Your task to perform on an android device: turn on location history Image 0: 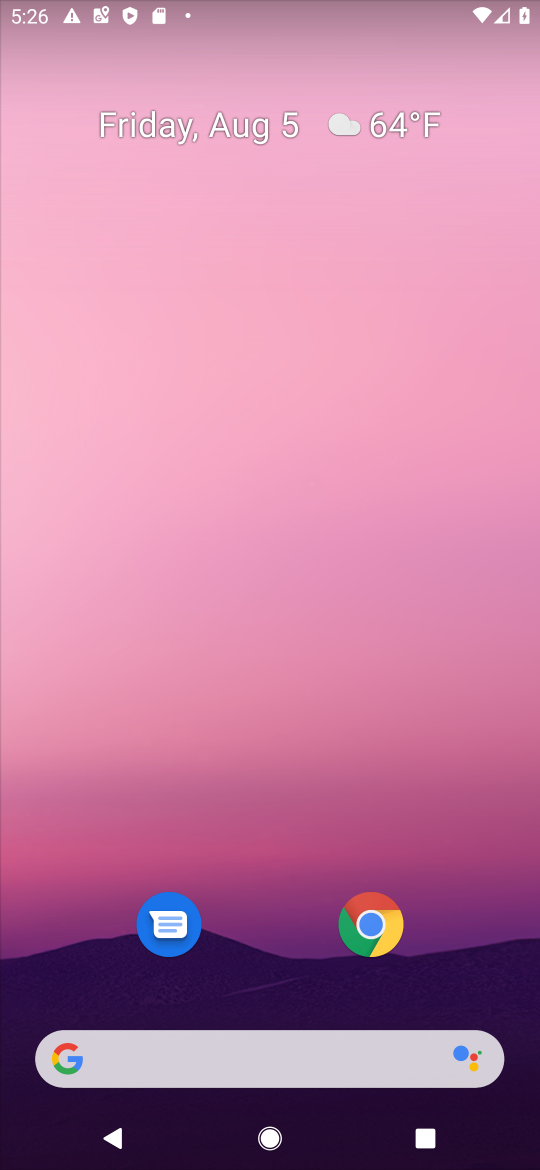
Step 0: drag from (198, 1138) to (266, 252)
Your task to perform on an android device: turn on location history Image 1: 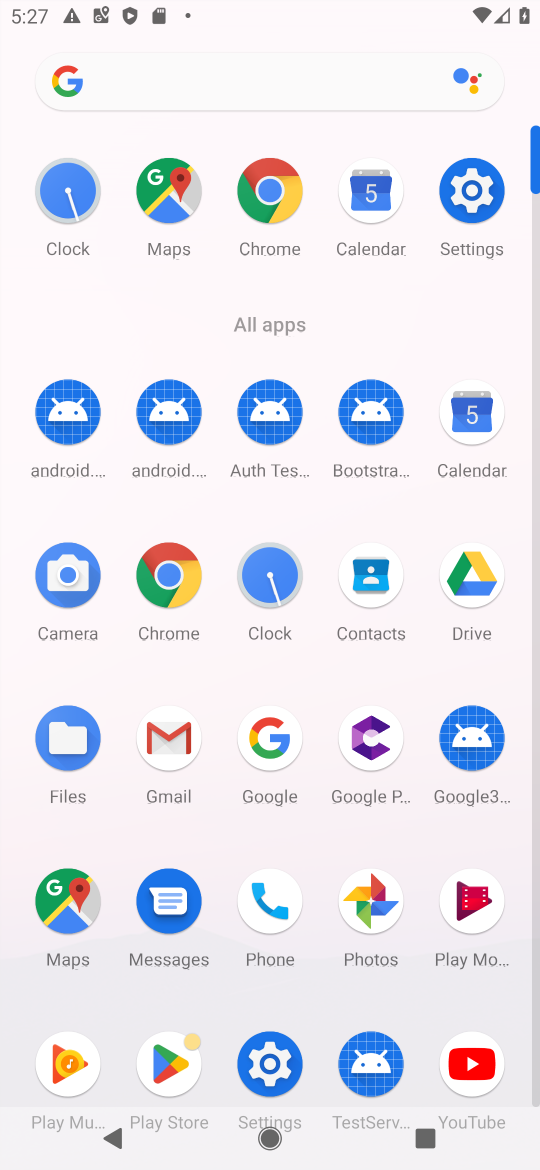
Step 1: click (70, 911)
Your task to perform on an android device: turn on location history Image 2: 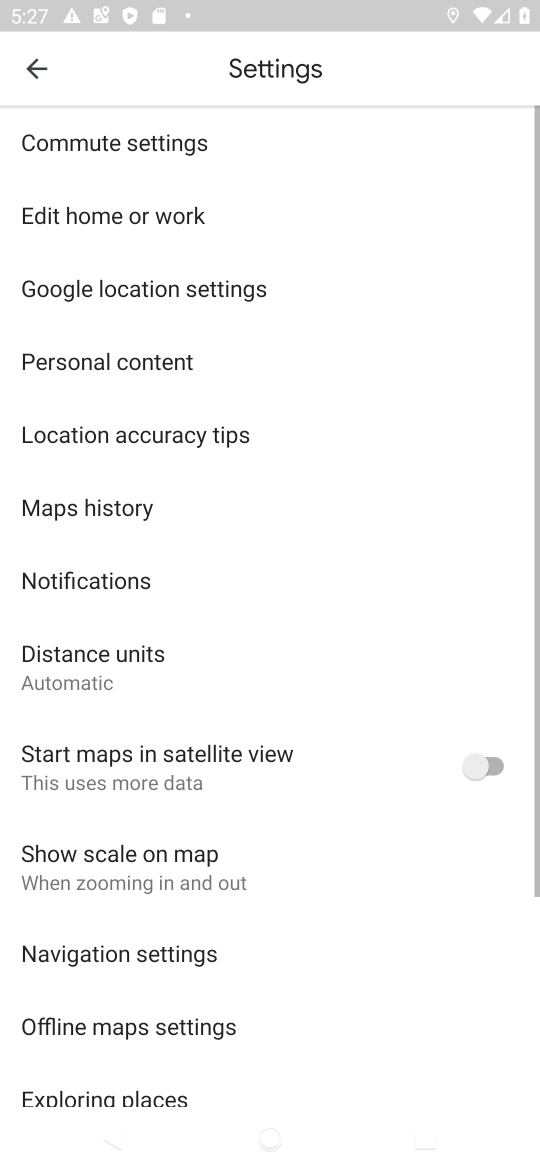
Step 2: click (37, 63)
Your task to perform on an android device: turn on location history Image 3: 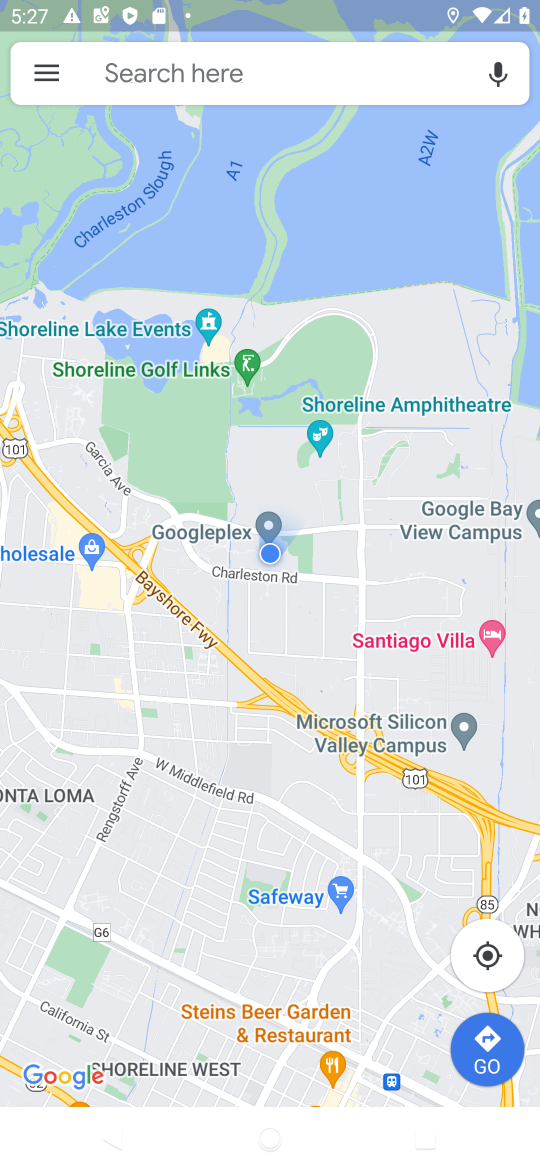
Step 3: click (32, 70)
Your task to perform on an android device: turn on location history Image 4: 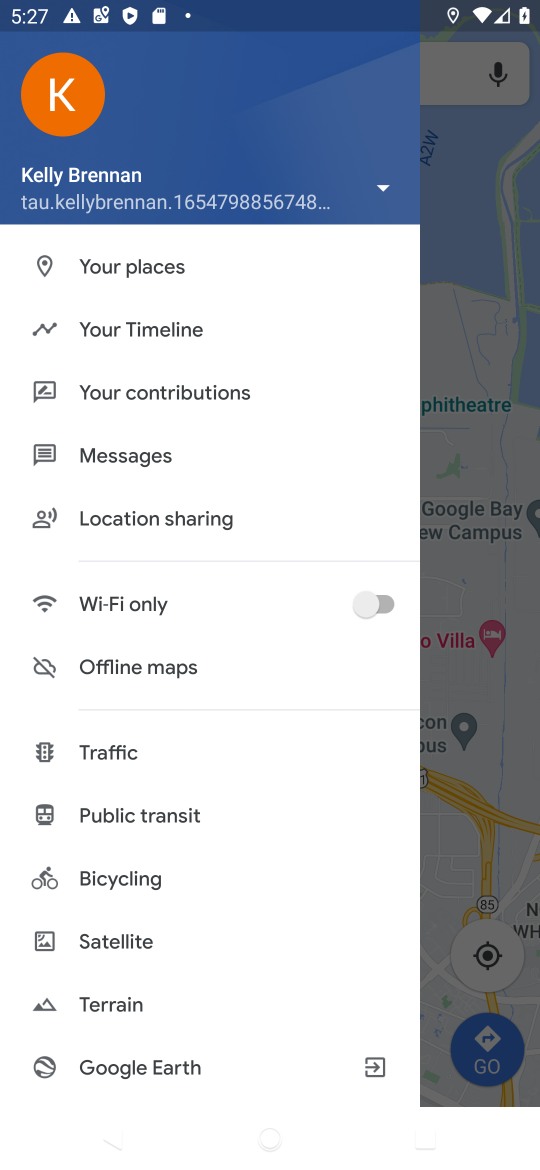
Step 4: click (220, 332)
Your task to perform on an android device: turn on location history Image 5: 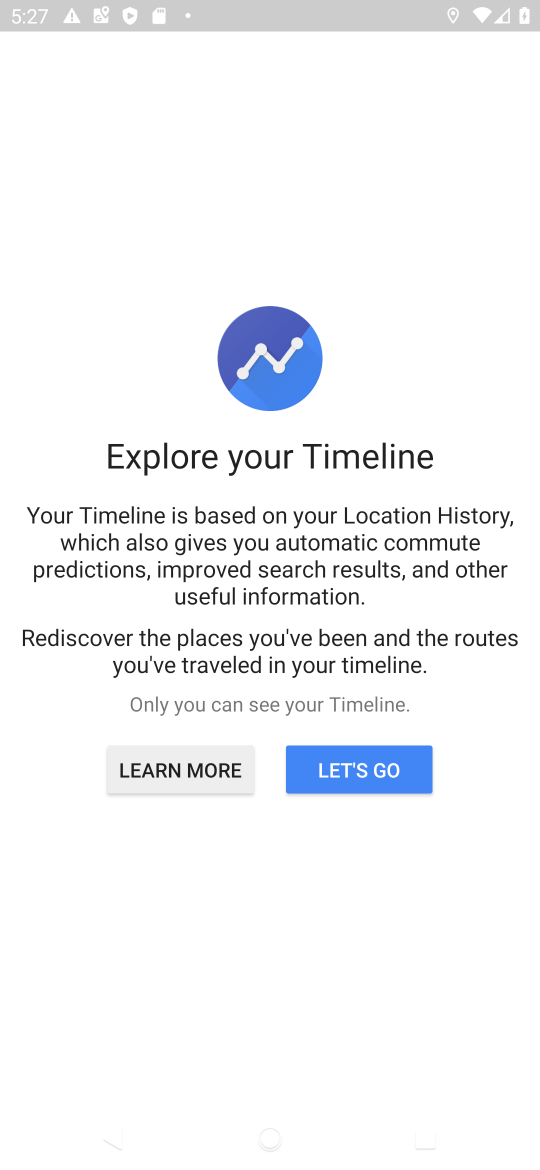
Step 5: click (351, 759)
Your task to perform on an android device: turn on location history Image 6: 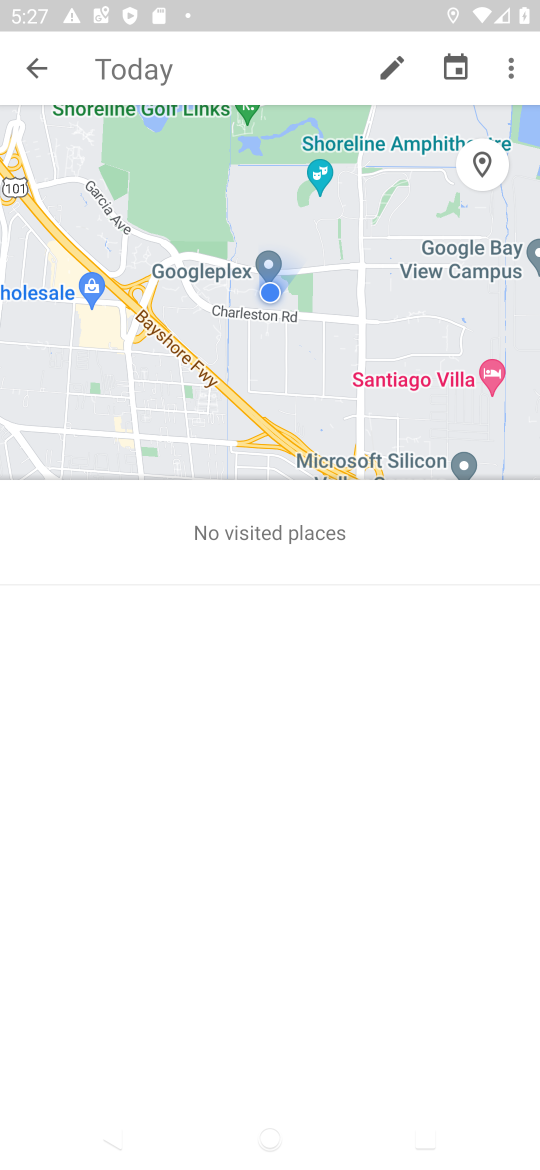
Step 6: click (506, 71)
Your task to perform on an android device: turn on location history Image 7: 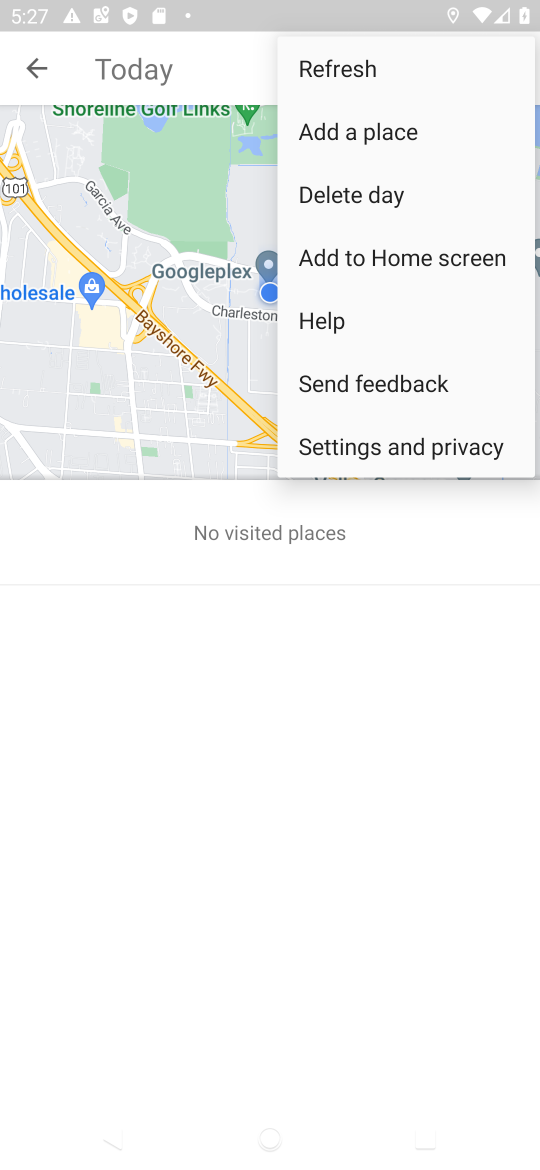
Step 7: click (383, 446)
Your task to perform on an android device: turn on location history Image 8: 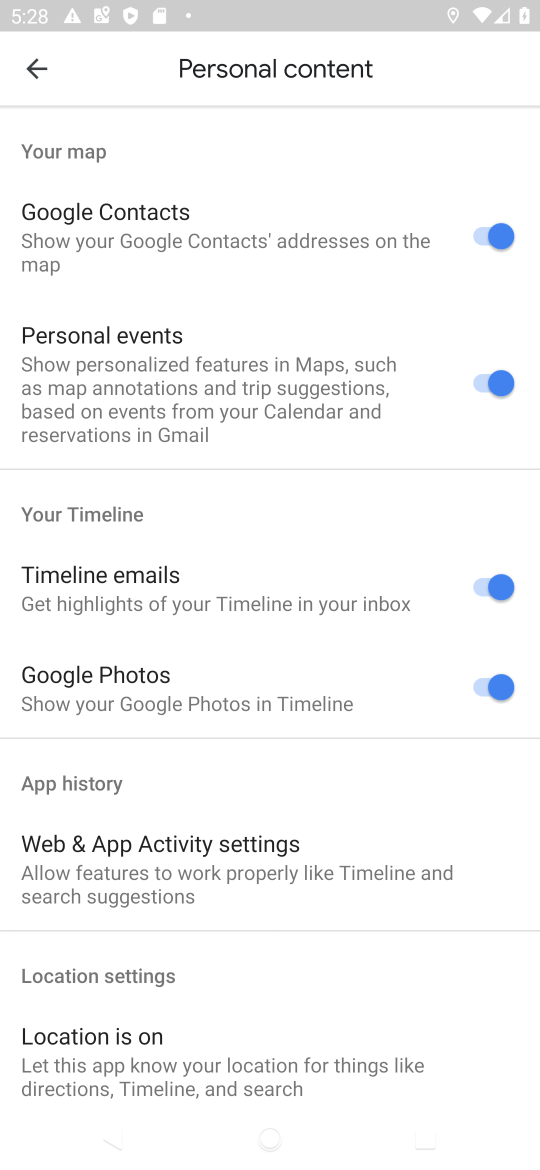
Step 8: drag from (308, 1020) to (167, 438)
Your task to perform on an android device: turn on location history Image 9: 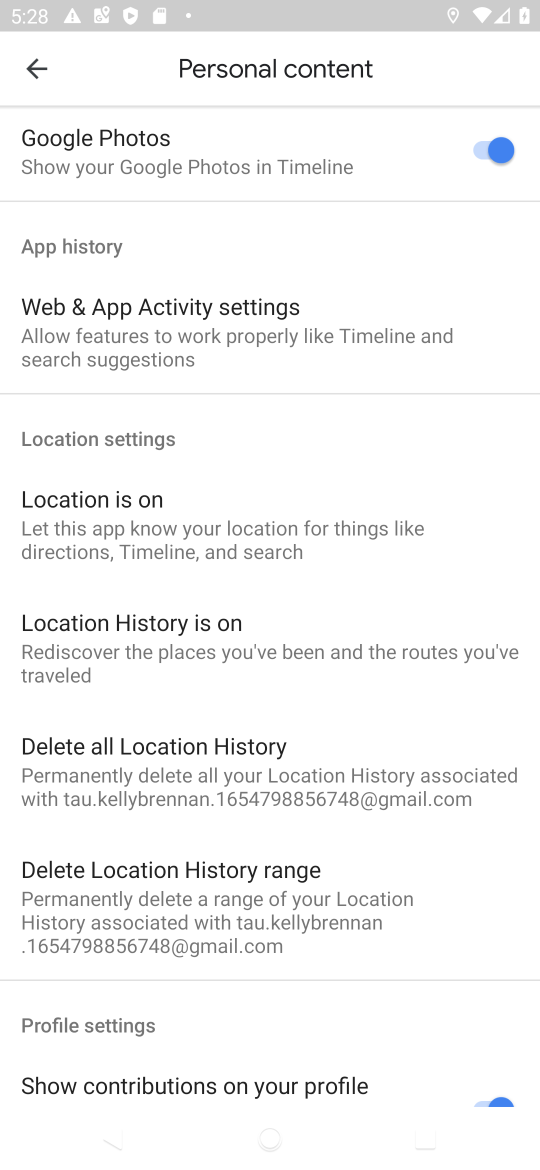
Step 9: click (238, 637)
Your task to perform on an android device: turn on location history Image 10: 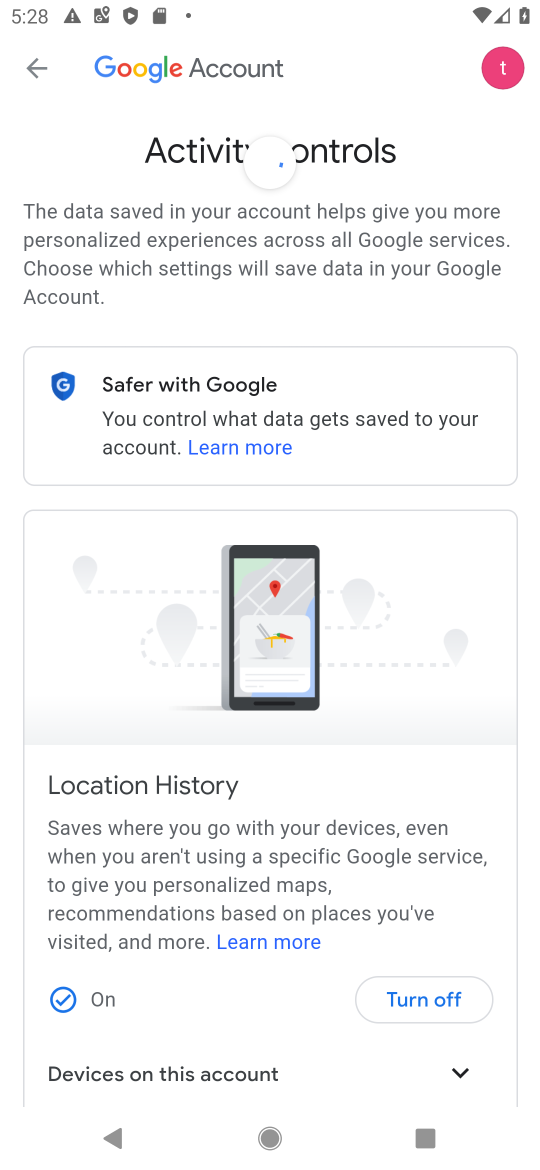
Step 10: task complete